Your task to perform on an android device: choose inbox layout in the gmail app Image 0: 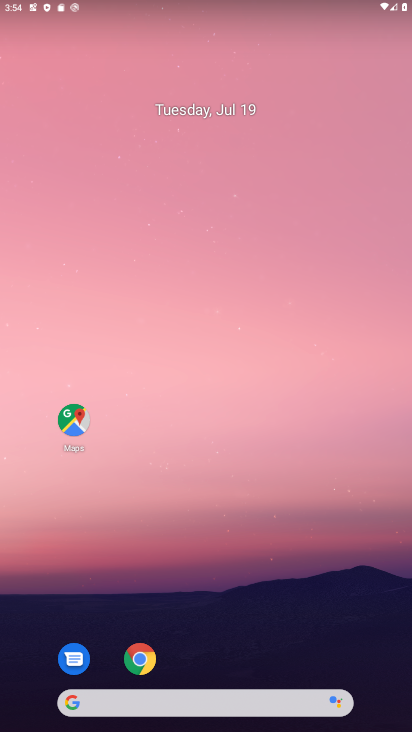
Step 0: drag from (310, 613) to (334, 75)
Your task to perform on an android device: choose inbox layout in the gmail app Image 1: 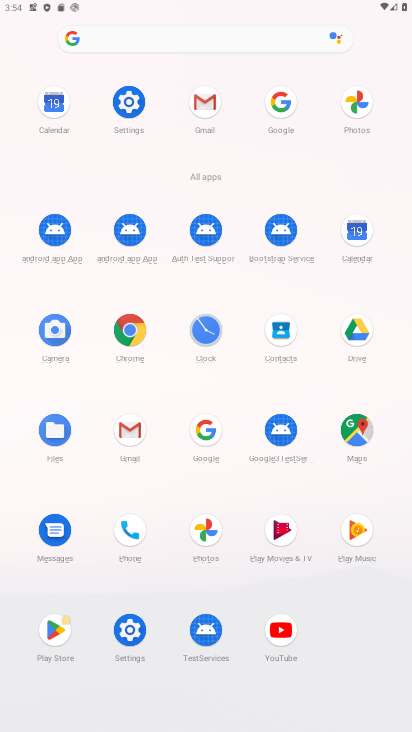
Step 1: click (211, 103)
Your task to perform on an android device: choose inbox layout in the gmail app Image 2: 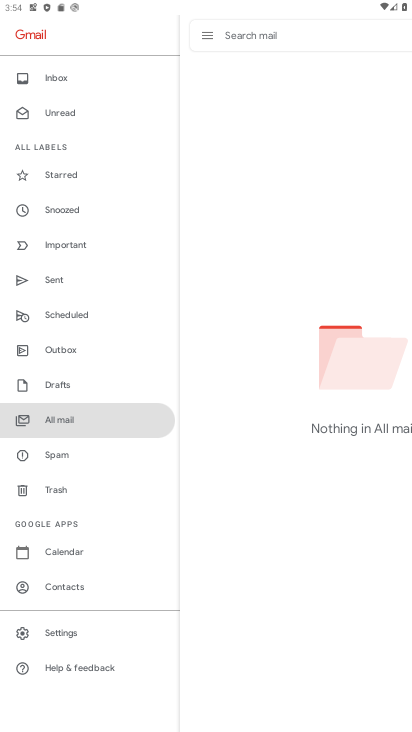
Step 2: drag from (86, 605) to (131, 277)
Your task to perform on an android device: choose inbox layout in the gmail app Image 3: 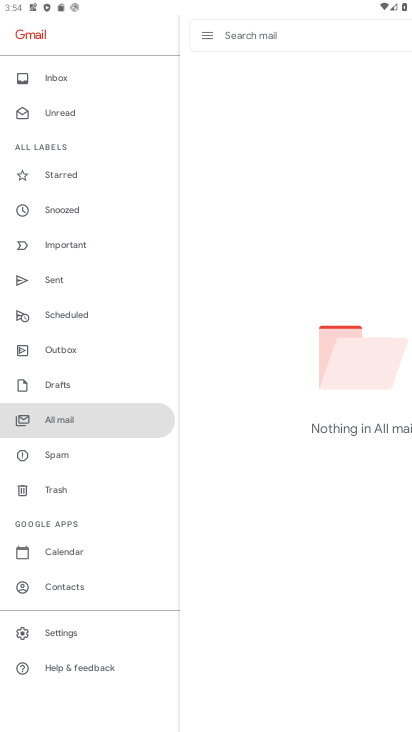
Step 3: click (72, 646)
Your task to perform on an android device: choose inbox layout in the gmail app Image 4: 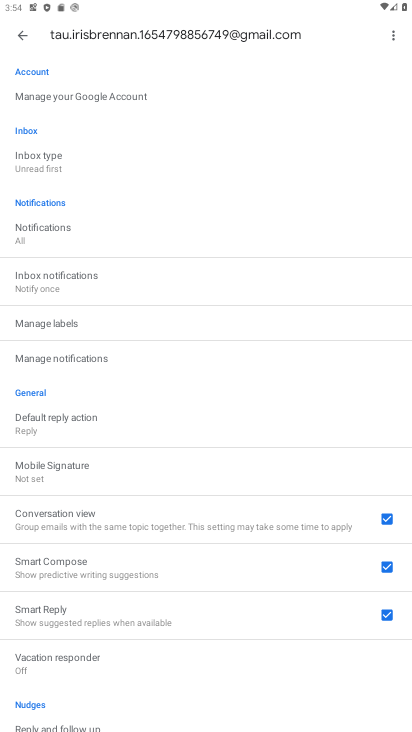
Step 4: click (72, 162)
Your task to perform on an android device: choose inbox layout in the gmail app Image 5: 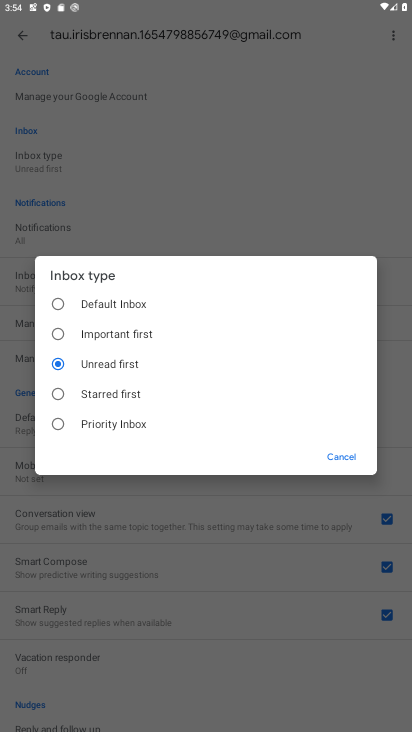
Step 5: click (91, 396)
Your task to perform on an android device: choose inbox layout in the gmail app Image 6: 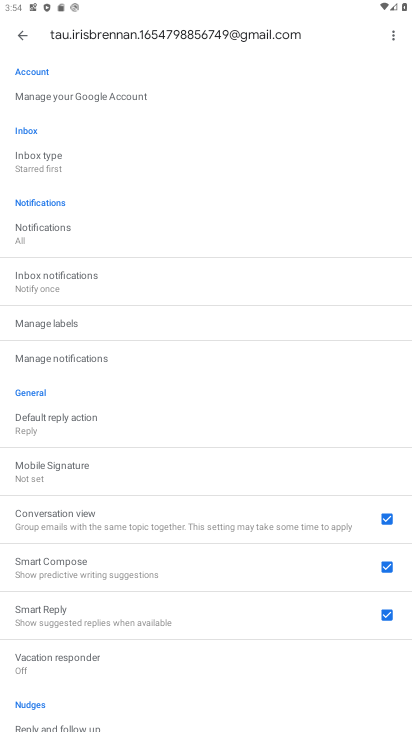
Step 6: task complete